Your task to perform on an android device: manage bookmarks in the chrome app Image 0: 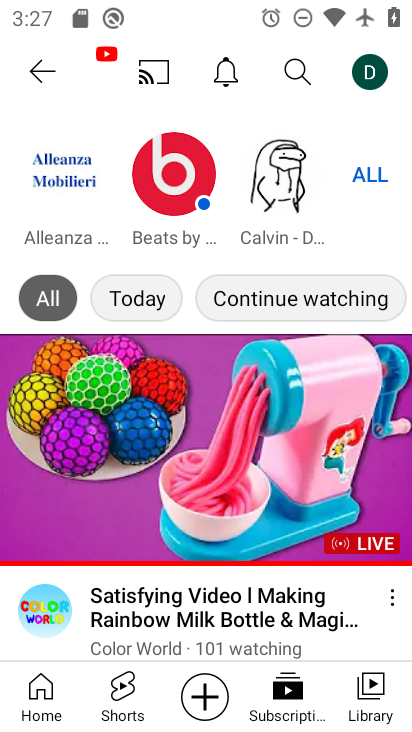
Step 0: press home button
Your task to perform on an android device: manage bookmarks in the chrome app Image 1: 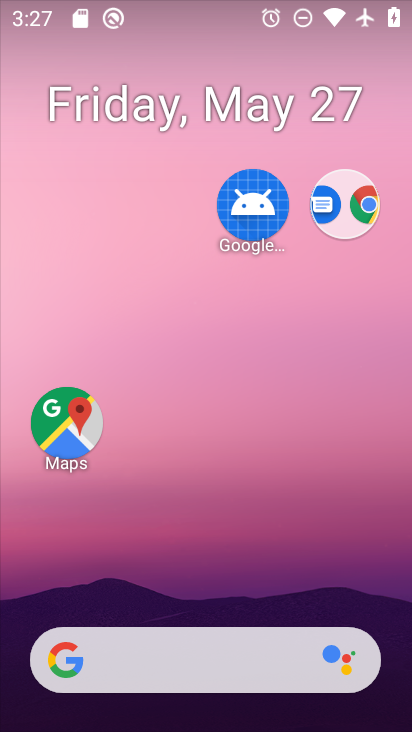
Step 1: drag from (232, 591) to (339, 145)
Your task to perform on an android device: manage bookmarks in the chrome app Image 2: 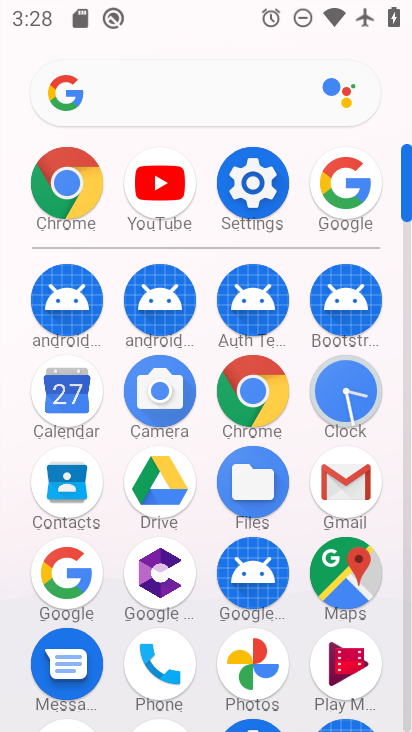
Step 2: click (80, 196)
Your task to perform on an android device: manage bookmarks in the chrome app Image 3: 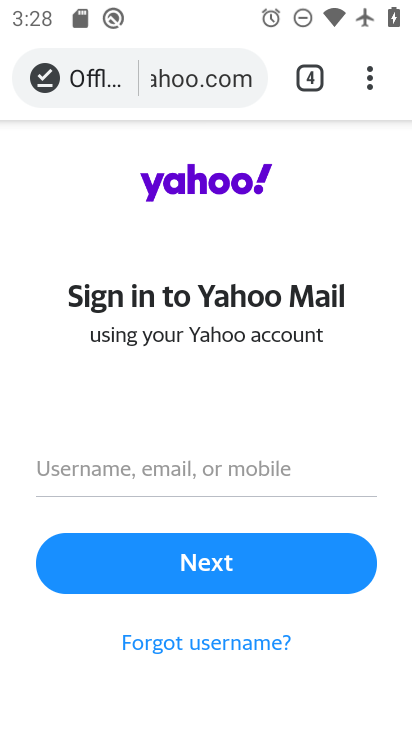
Step 3: click (380, 83)
Your task to perform on an android device: manage bookmarks in the chrome app Image 4: 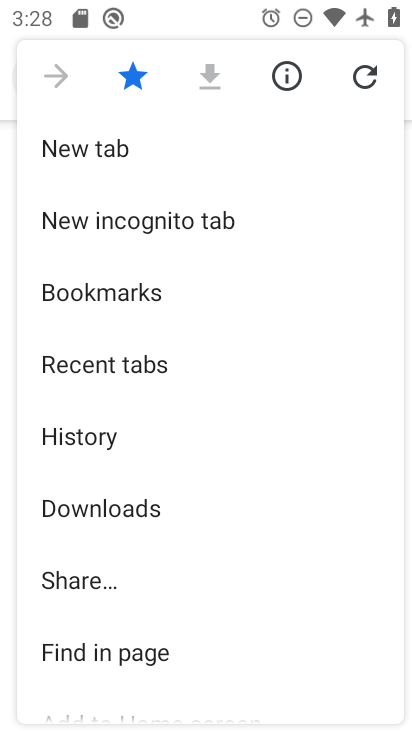
Step 4: click (132, 279)
Your task to perform on an android device: manage bookmarks in the chrome app Image 5: 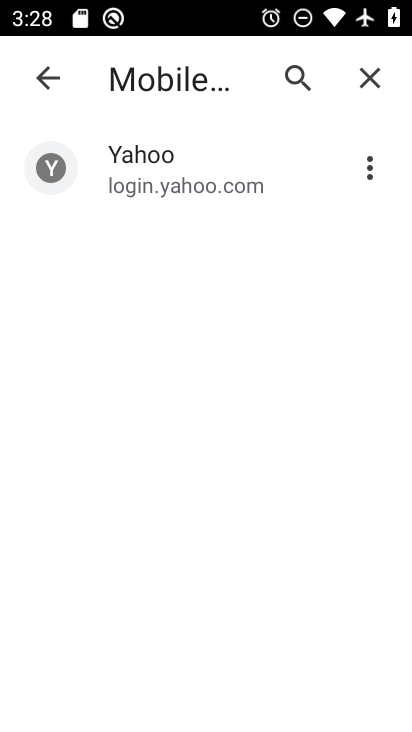
Step 5: task complete